Your task to perform on an android device: Go to sound settings Image 0: 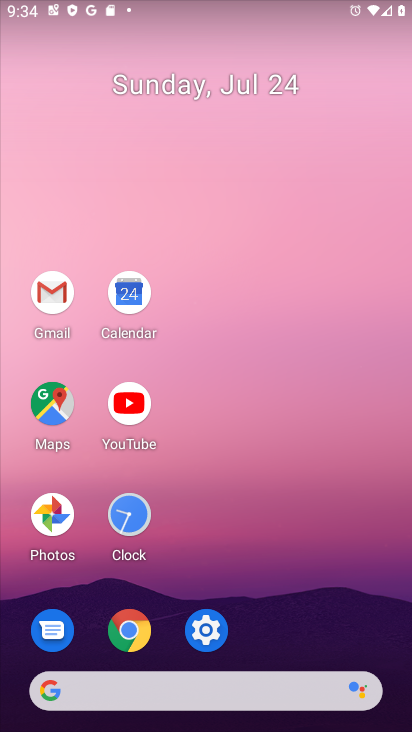
Step 0: click (209, 635)
Your task to perform on an android device: Go to sound settings Image 1: 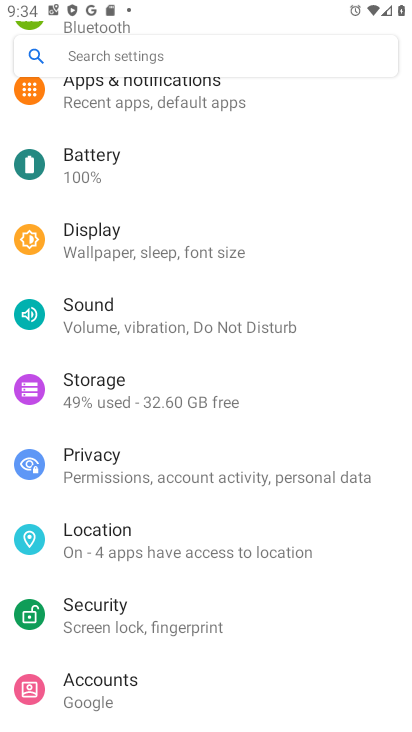
Step 1: click (88, 298)
Your task to perform on an android device: Go to sound settings Image 2: 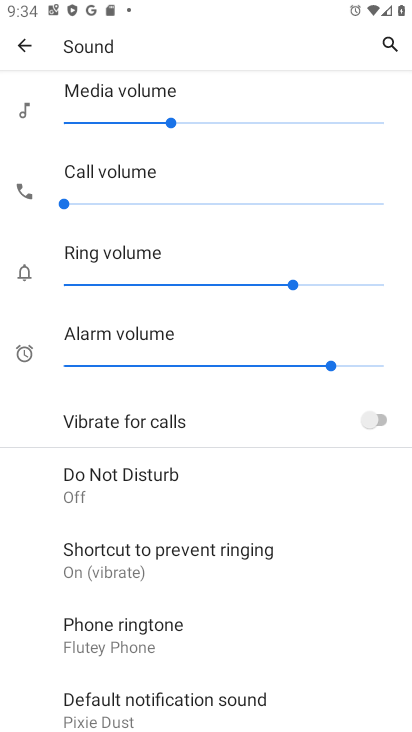
Step 2: task complete